Your task to perform on an android device: Open Yahoo.com Image 0: 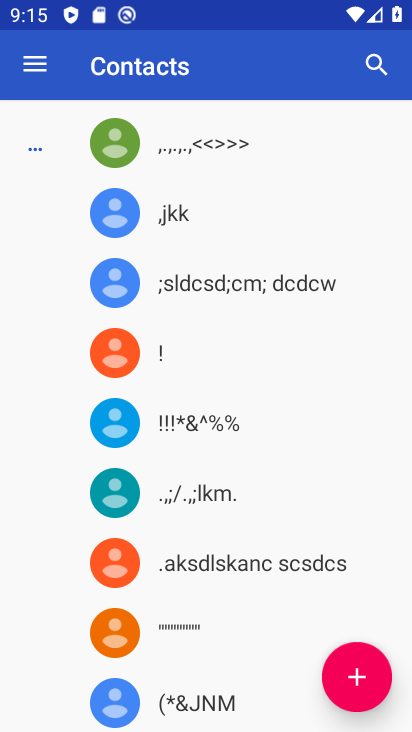
Step 0: press home button
Your task to perform on an android device: Open Yahoo.com Image 1: 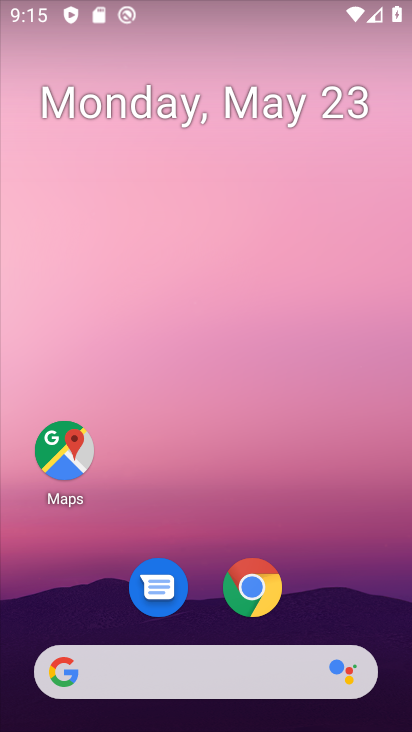
Step 1: drag from (324, 570) to (349, 98)
Your task to perform on an android device: Open Yahoo.com Image 2: 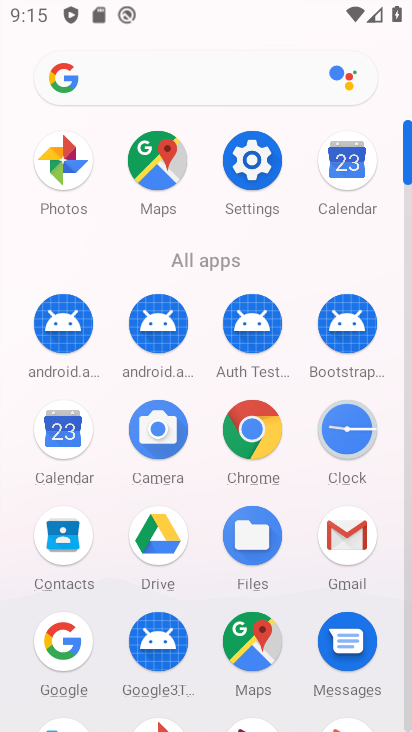
Step 2: click (260, 448)
Your task to perform on an android device: Open Yahoo.com Image 3: 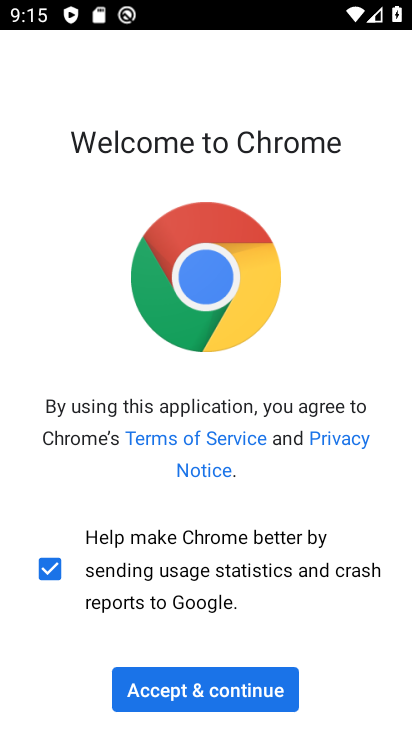
Step 3: click (192, 689)
Your task to perform on an android device: Open Yahoo.com Image 4: 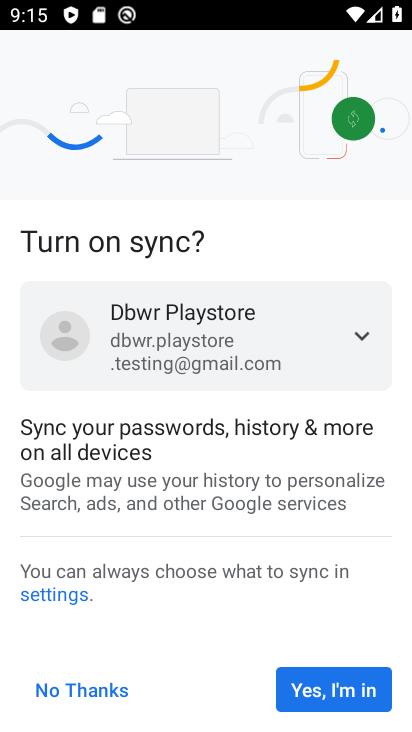
Step 4: click (103, 683)
Your task to perform on an android device: Open Yahoo.com Image 5: 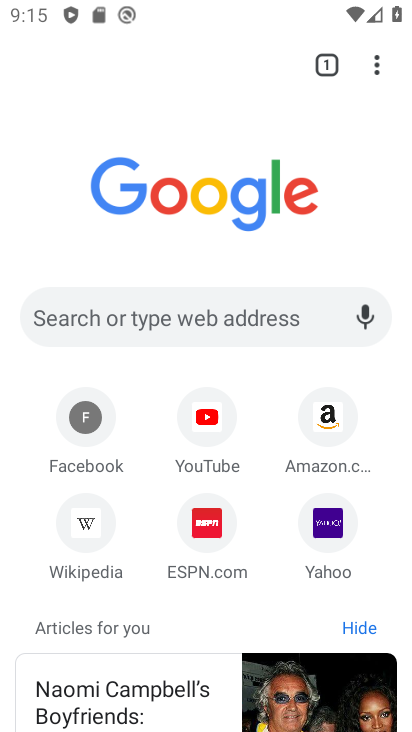
Step 5: click (330, 532)
Your task to perform on an android device: Open Yahoo.com Image 6: 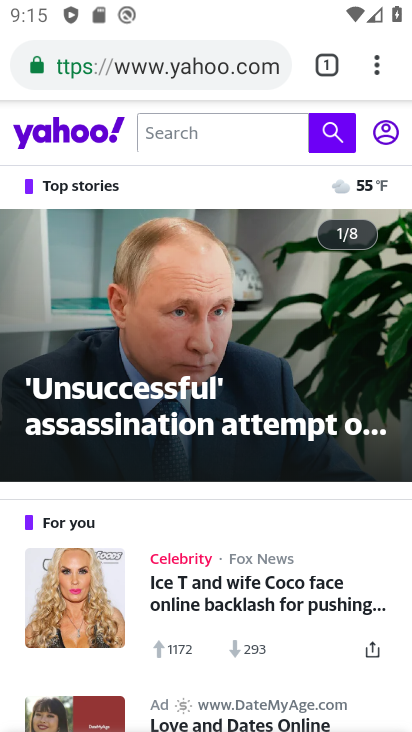
Step 6: task complete